Your task to perform on an android device: turn on the 12-hour format for clock Image 0: 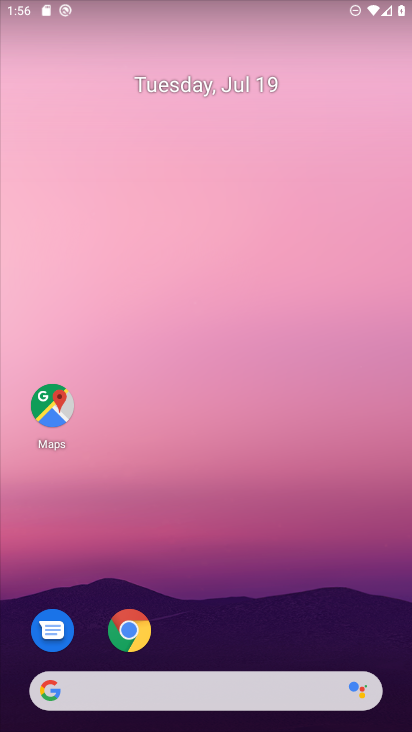
Step 0: press home button
Your task to perform on an android device: turn on the 12-hour format for clock Image 1: 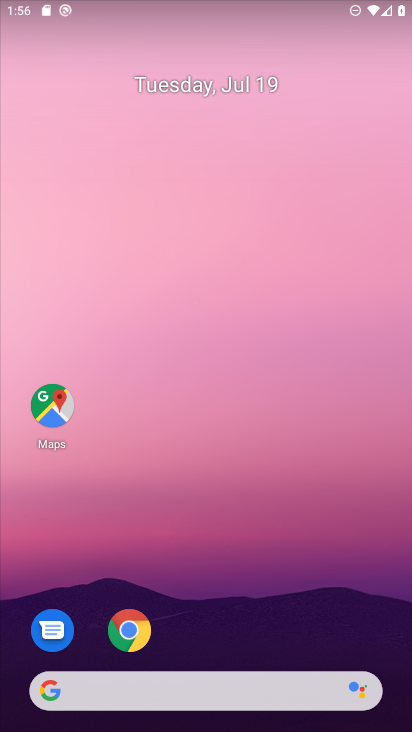
Step 1: drag from (204, 655) to (285, 287)
Your task to perform on an android device: turn on the 12-hour format for clock Image 2: 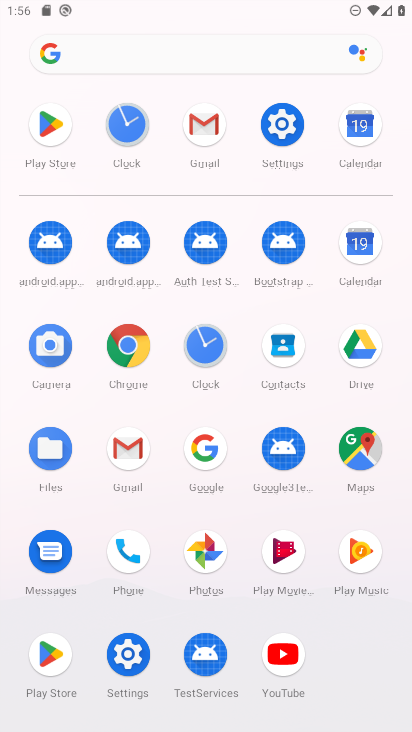
Step 2: click (212, 340)
Your task to perform on an android device: turn on the 12-hour format for clock Image 3: 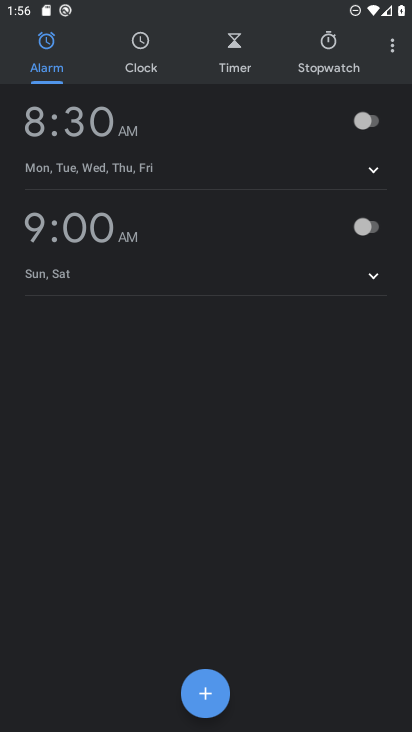
Step 3: click (394, 45)
Your task to perform on an android device: turn on the 12-hour format for clock Image 4: 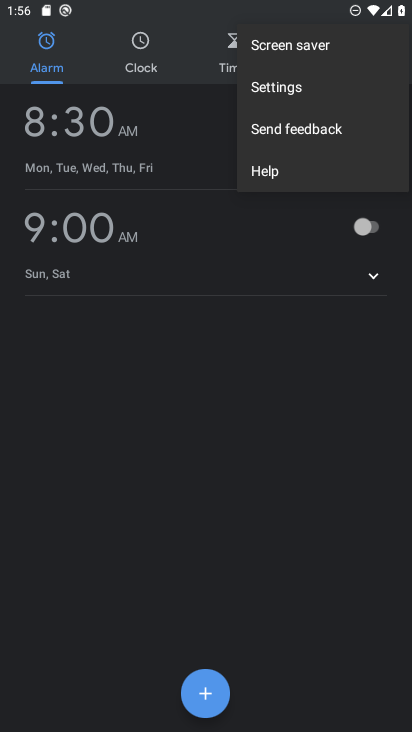
Step 4: click (293, 87)
Your task to perform on an android device: turn on the 12-hour format for clock Image 5: 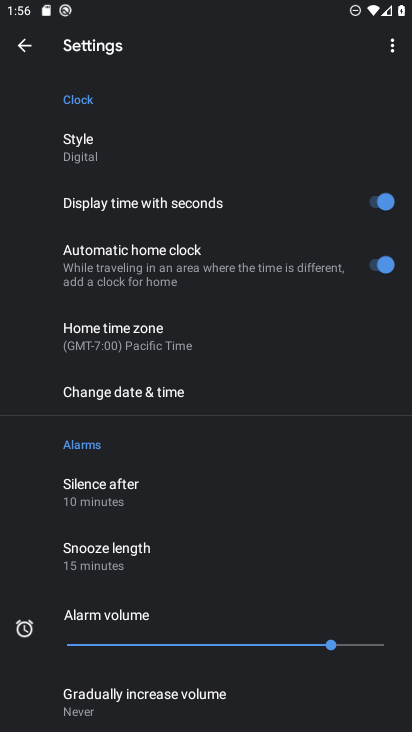
Step 5: click (143, 394)
Your task to perform on an android device: turn on the 12-hour format for clock Image 6: 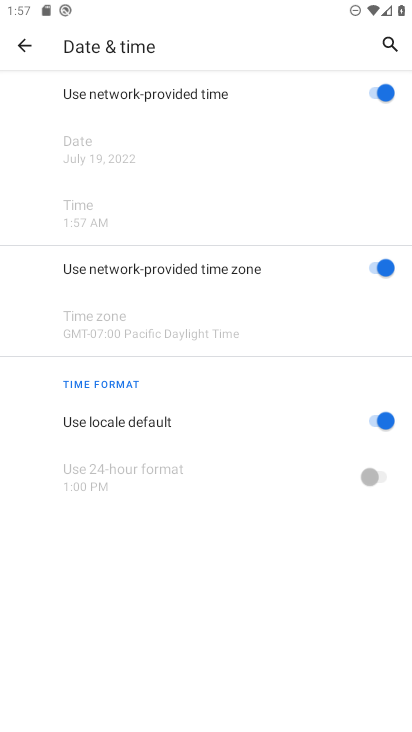
Step 6: task complete